Your task to perform on an android device: Toggle the flashlight Image 0: 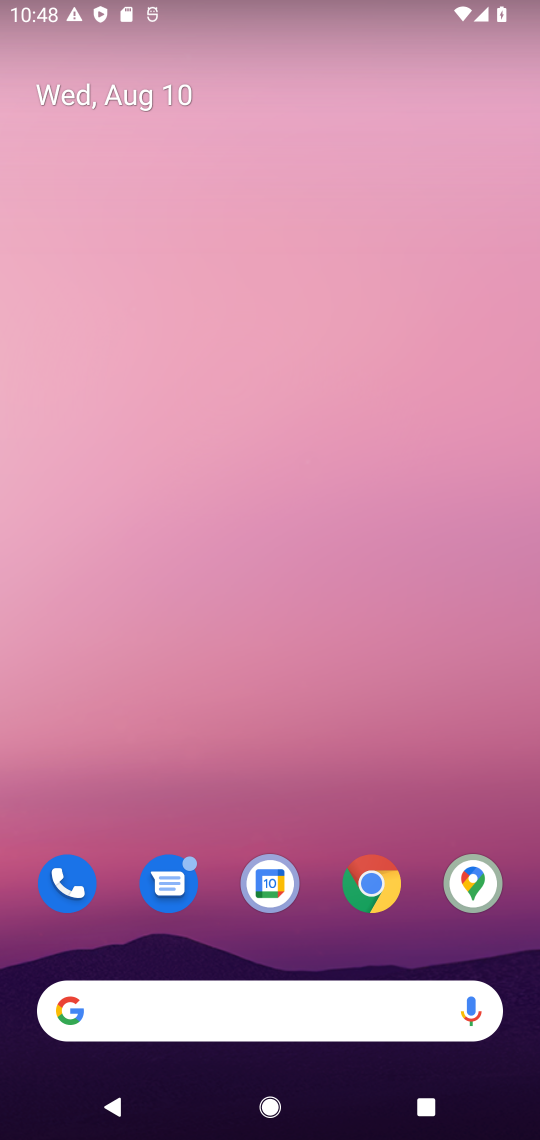
Step 0: task impossible